Your task to perform on an android device: find photos in the google photos app Image 0: 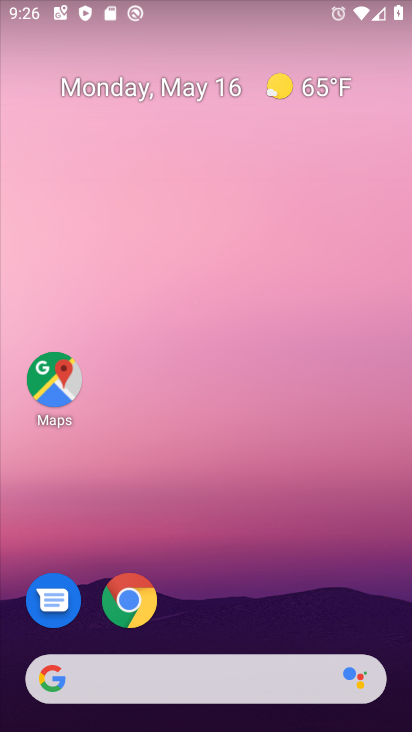
Step 0: drag from (205, 610) to (270, 243)
Your task to perform on an android device: find photos in the google photos app Image 1: 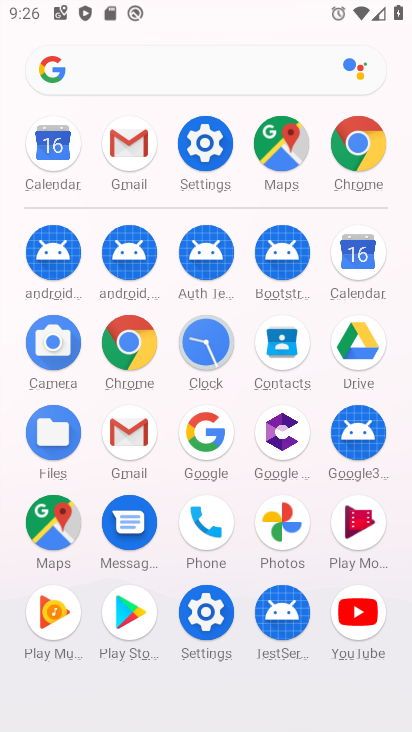
Step 1: click (281, 525)
Your task to perform on an android device: find photos in the google photos app Image 2: 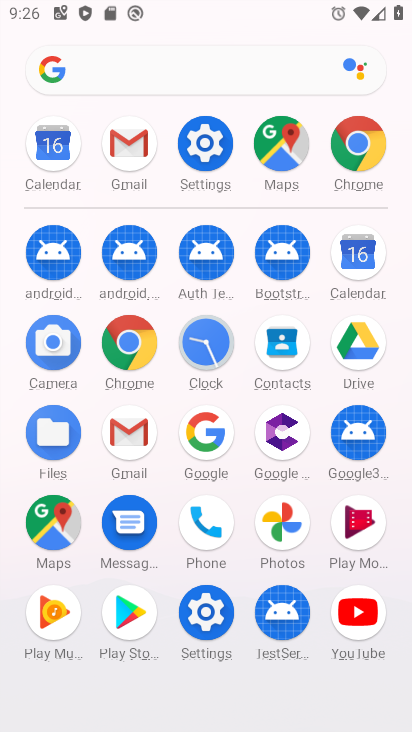
Step 2: click (281, 525)
Your task to perform on an android device: find photos in the google photos app Image 3: 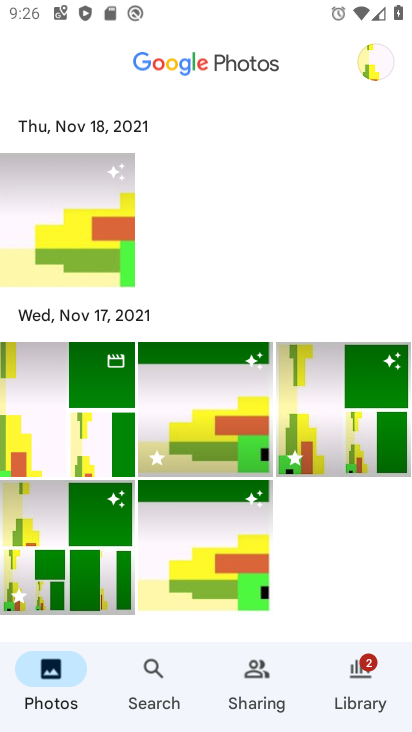
Step 3: click (69, 452)
Your task to perform on an android device: find photos in the google photos app Image 4: 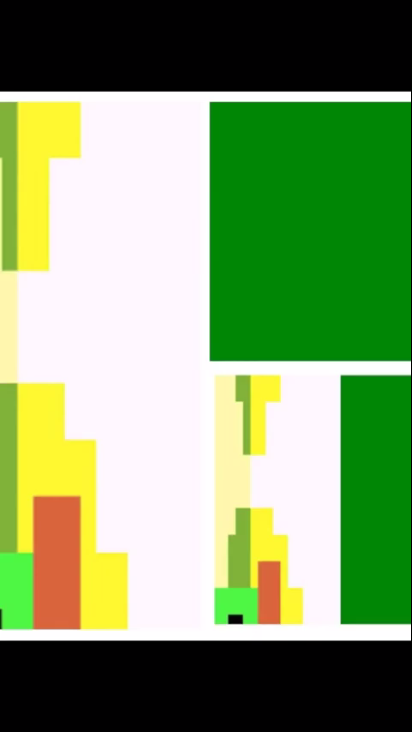
Step 4: task complete